Your task to perform on an android device: refresh tabs in the chrome app Image 0: 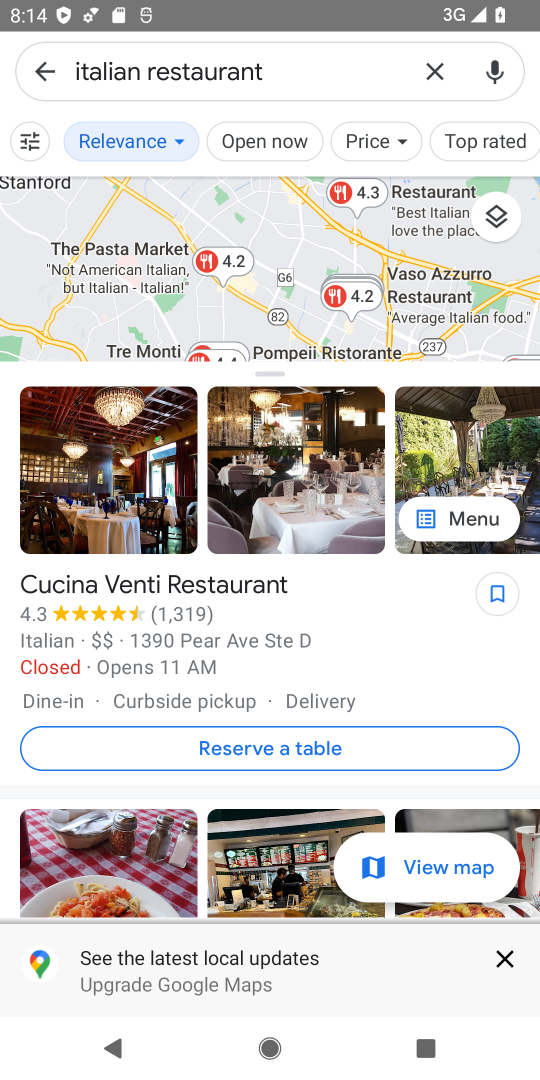
Step 0: press home button
Your task to perform on an android device: refresh tabs in the chrome app Image 1: 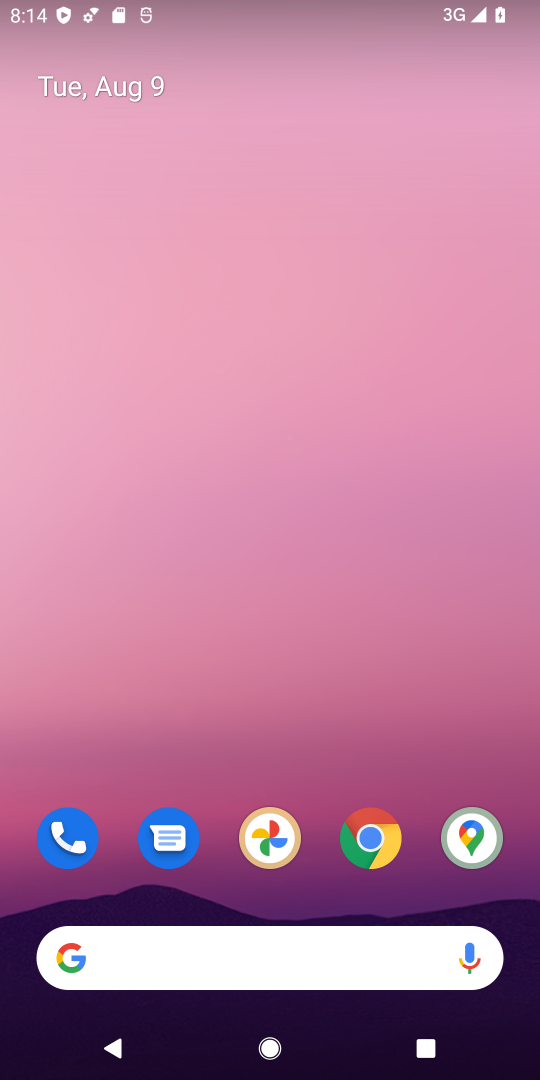
Step 1: click (373, 845)
Your task to perform on an android device: refresh tabs in the chrome app Image 2: 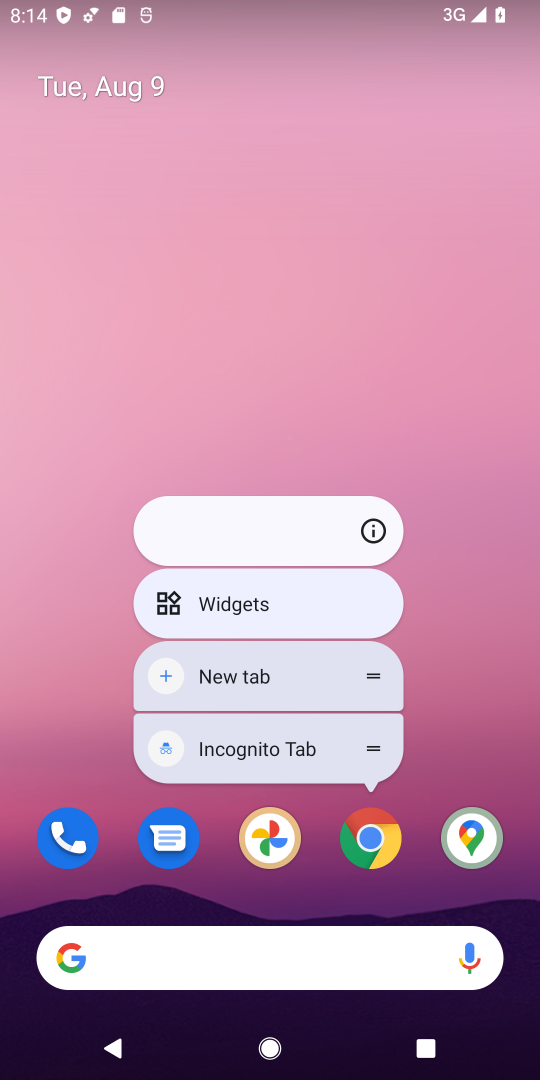
Step 2: click (373, 845)
Your task to perform on an android device: refresh tabs in the chrome app Image 3: 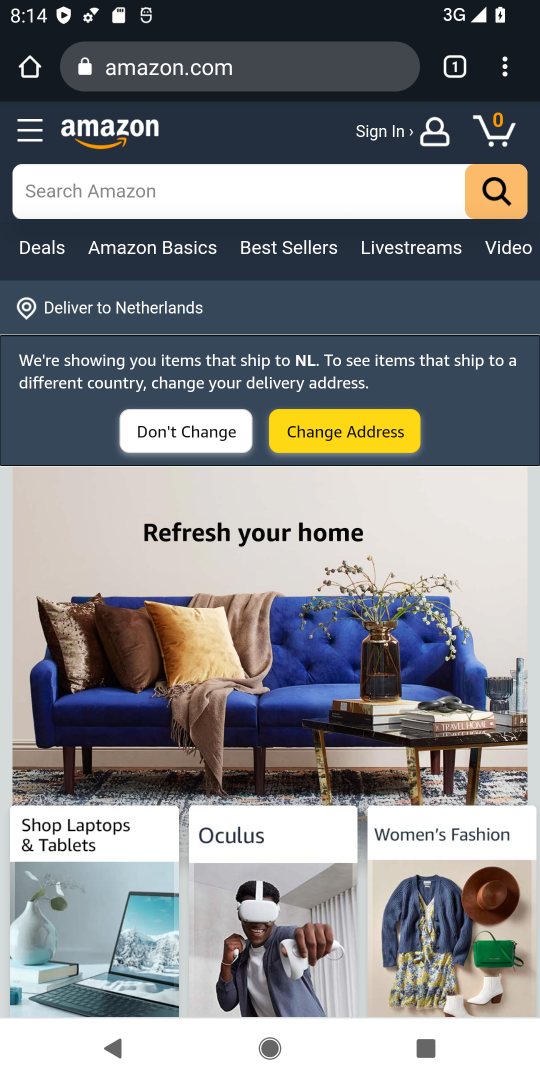
Step 3: click (504, 65)
Your task to perform on an android device: refresh tabs in the chrome app Image 4: 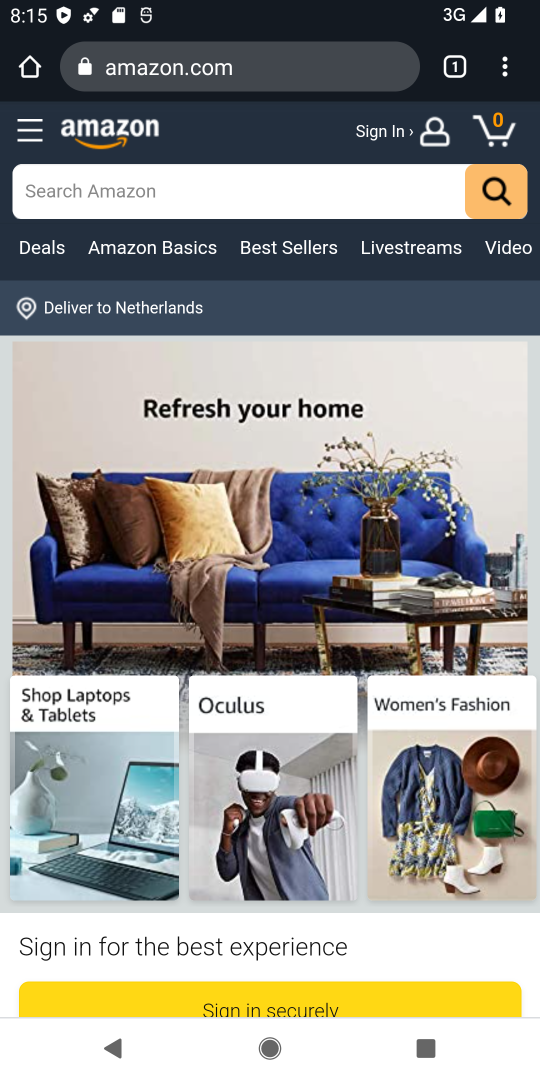
Step 4: task complete